Your task to perform on an android device: Go to wifi settings Image 0: 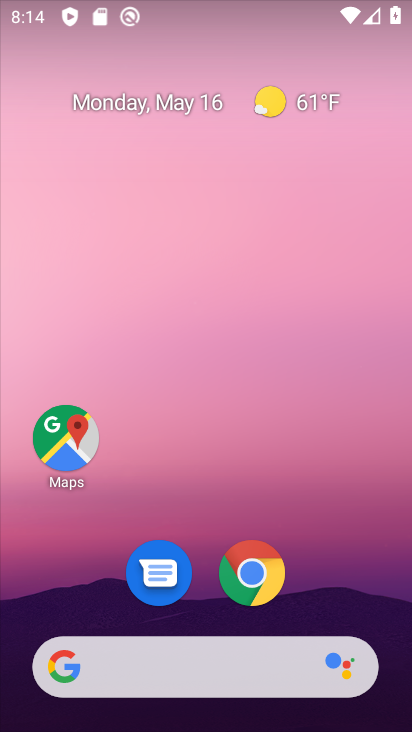
Step 0: drag from (227, 724) to (239, 134)
Your task to perform on an android device: Go to wifi settings Image 1: 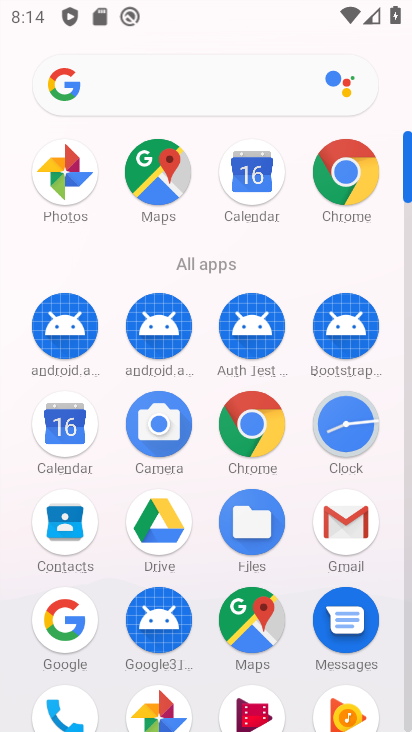
Step 1: drag from (198, 569) to (180, 168)
Your task to perform on an android device: Go to wifi settings Image 2: 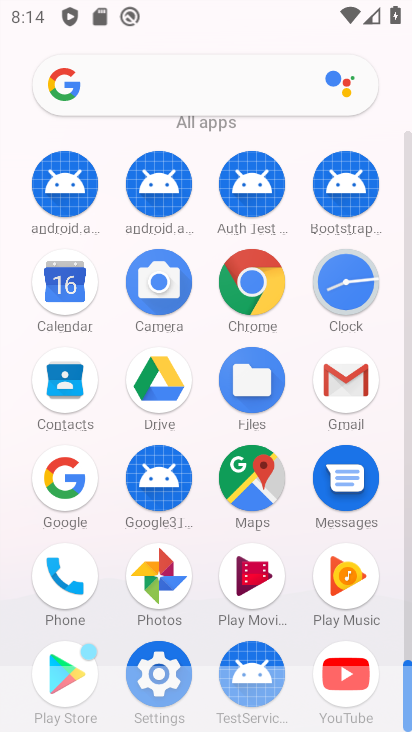
Step 2: click (163, 653)
Your task to perform on an android device: Go to wifi settings Image 3: 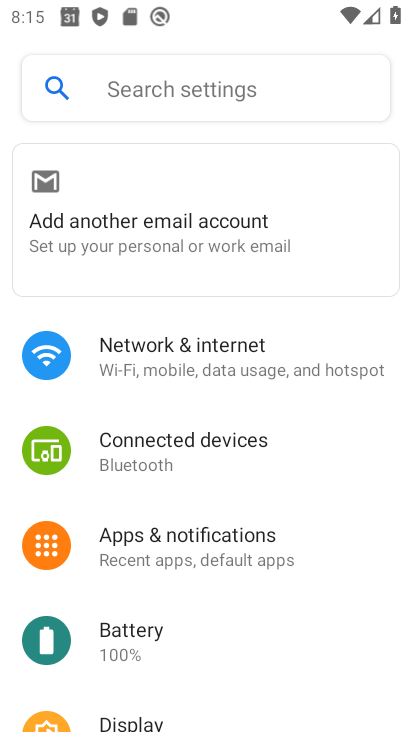
Step 3: click (140, 356)
Your task to perform on an android device: Go to wifi settings Image 4: 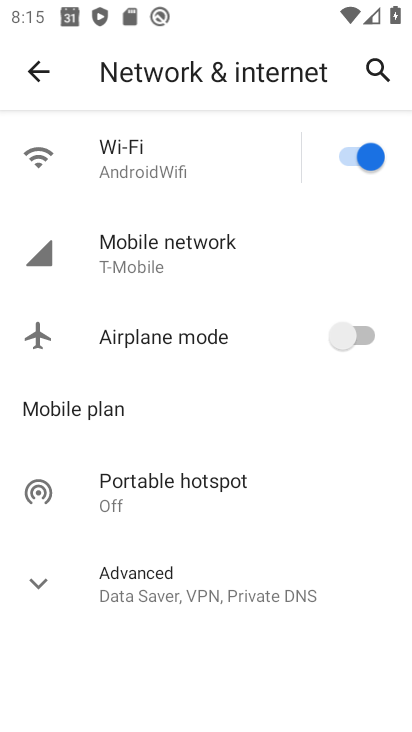
Step 4: click (139, 153)
Your task to perform on an android device: Go to wifi settings Image 5: 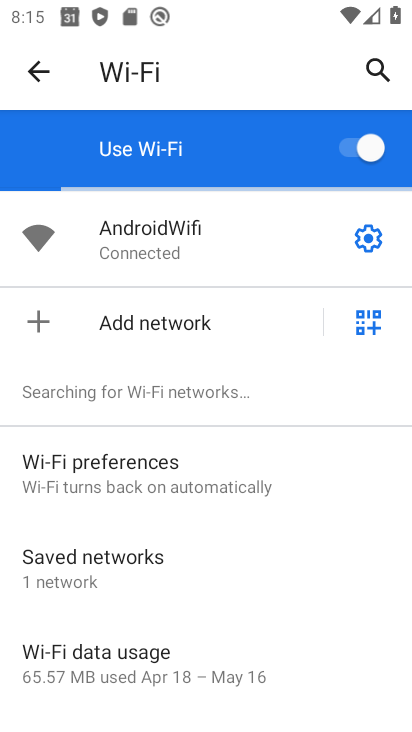
Step 5: task complete